Your task to perform on an android device: turn off smart reply in the gmail app Image 0: 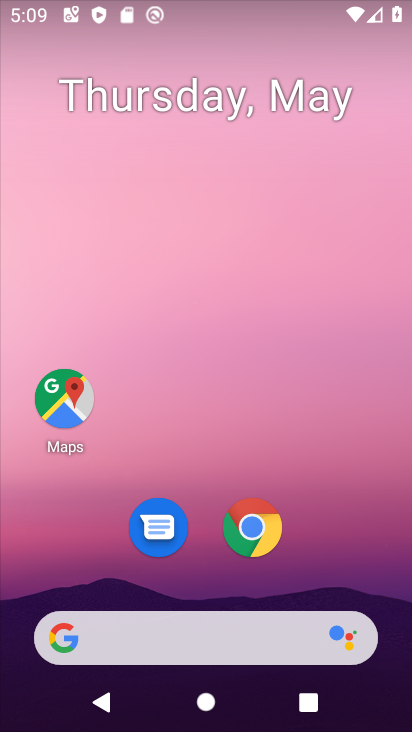
Step 0: drag from (338, 540) to (310, 78)
Your task to perform on an android device: turn off smart reply in the gmail app Image 1: 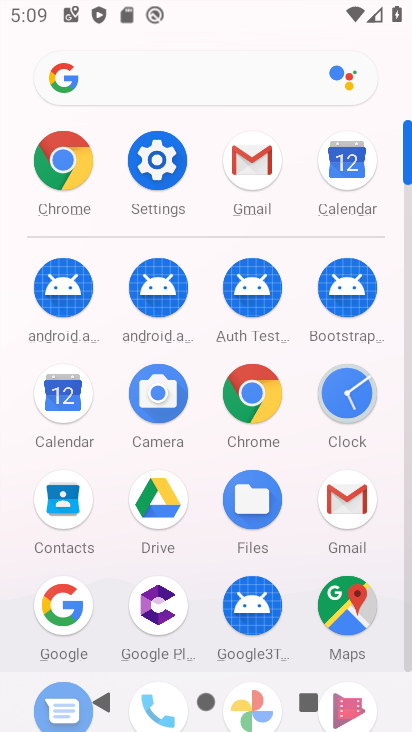
Step 1: click (246, 172)
Your task to perform on an android device: turn off smart reply in the gmail app Image 2: 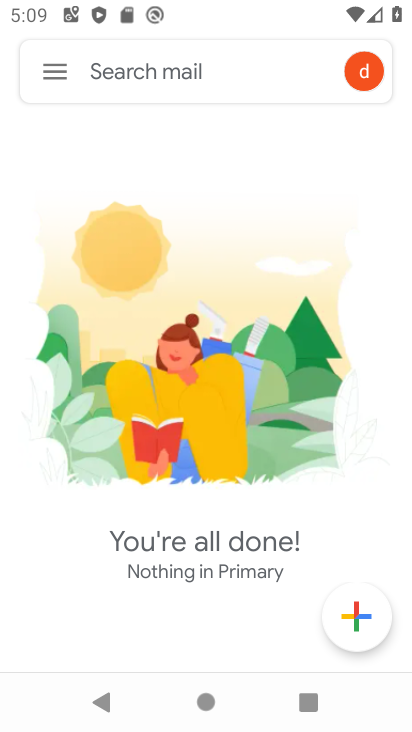
Step 2: click (73, 72)
Your task to perform on an android device: turn off smart reply in the gmail app Image 3: 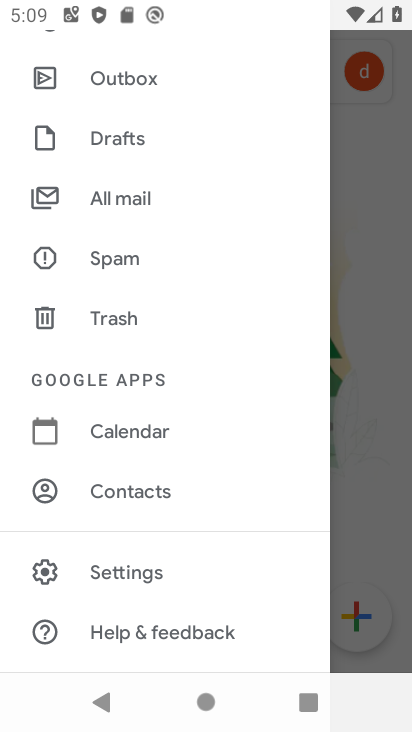
Step 3: click (142, 578)
Your task to perform on an android device: turn off smart reply in the gmail app Image 4: 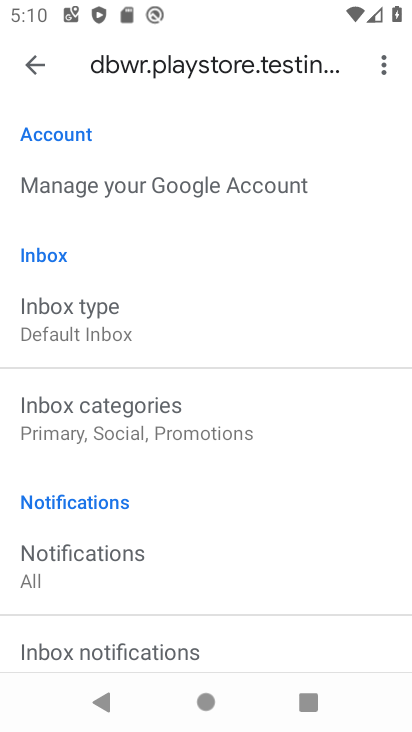
Step 4: drag from (135, 564) to (124, 348)
Your task to perform on an android device: turn off smart reply in the gmail app Image 5: 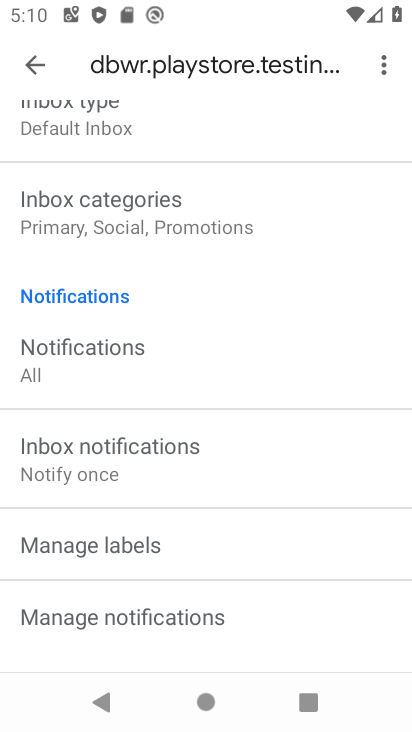
Step 5: drag from (122, 601) to (146, 320)
Your task to perform on an android device: turn off smart reply in the gmail app Image 6: 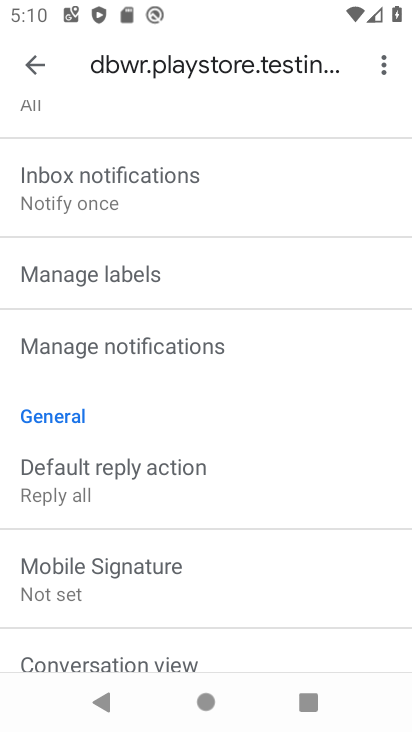
Step 6: drag from (177, 512) to (206, 268)
Your task to perform on an android device: turn off smart reply in the gmail app Image 7: 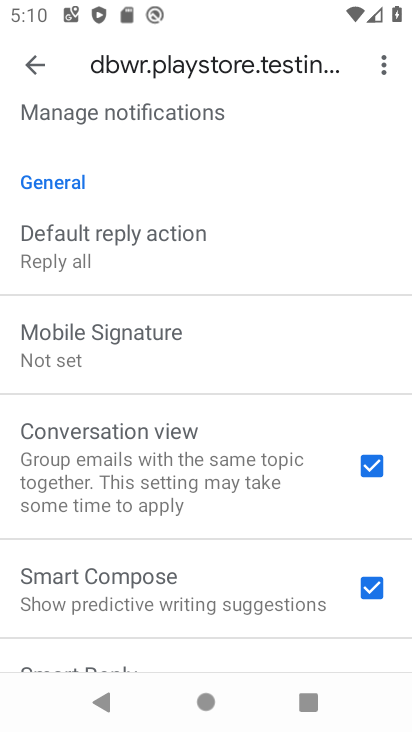
Step 7: drag from (218, 583) to (164, 271)
Your task to perform on an android device: turn off smart reply in the gmail app Image 8: 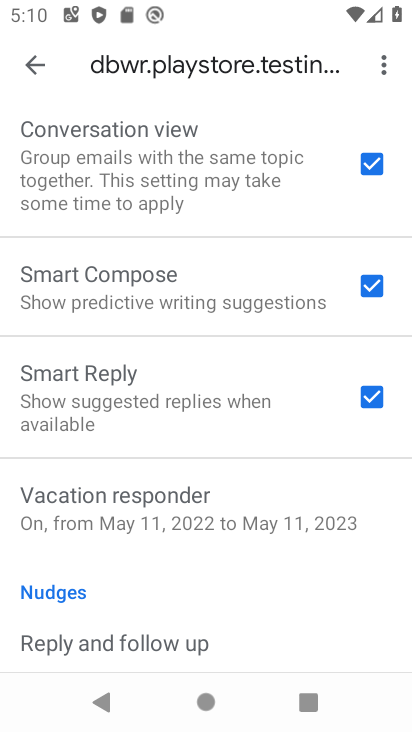
Step 8: click (382, 401)
Your task to perform on an android device: turn off smart reply in the gmail app Image 9: 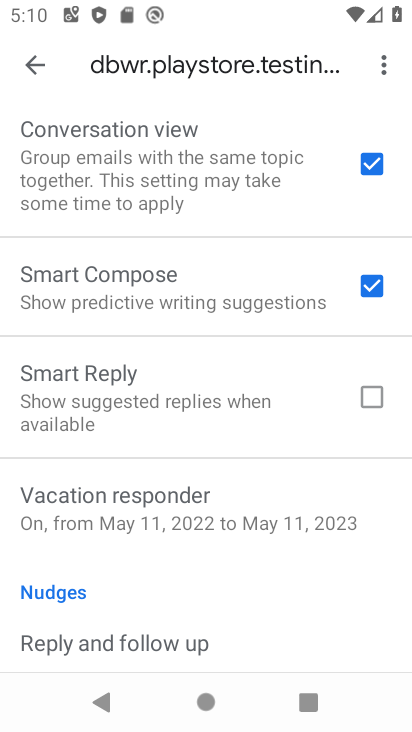
Step 9: task complete